Your task to perform on an android device: check the backup settings in the google photos Image 0: 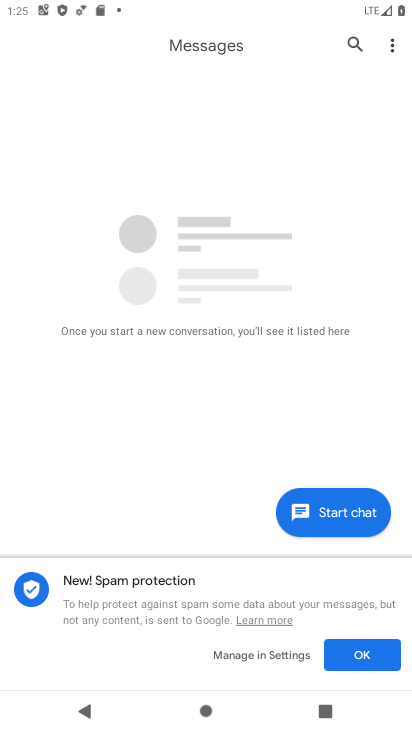
Step 0: press home button
Your task to perform on an android device: check the backup settings in the google photos Image 1: 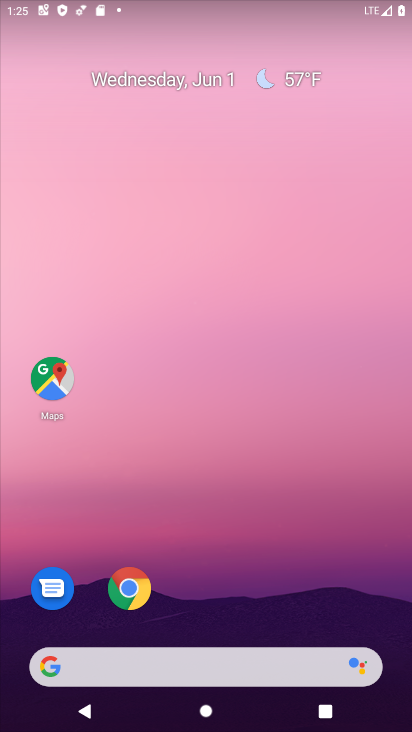
Step 1: drag from (277, 560) to (198, 23)
Your task to perform on an android device: check the backup settings in the google photos Image 2: 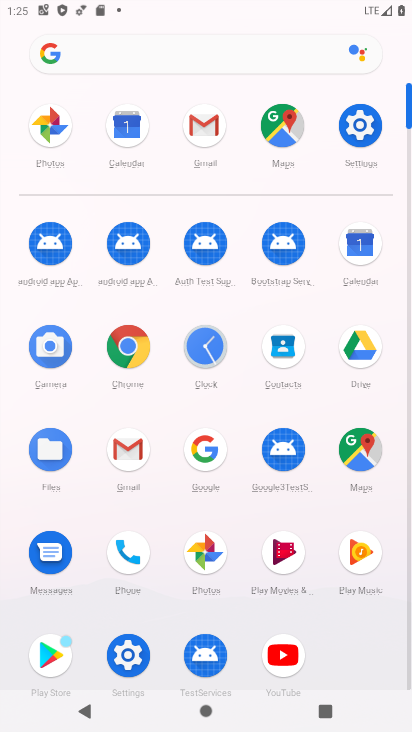
Step 2: click (221, 556)
Your task to perform on an android device: check the backup settings in the google photos Image 3: 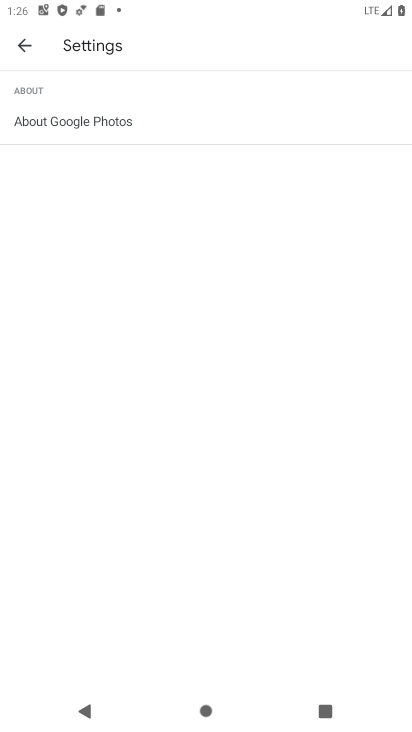
Step 3: click (20, 42)
Your task to perform on an android device: check the backup settings in the google photos Image 4: 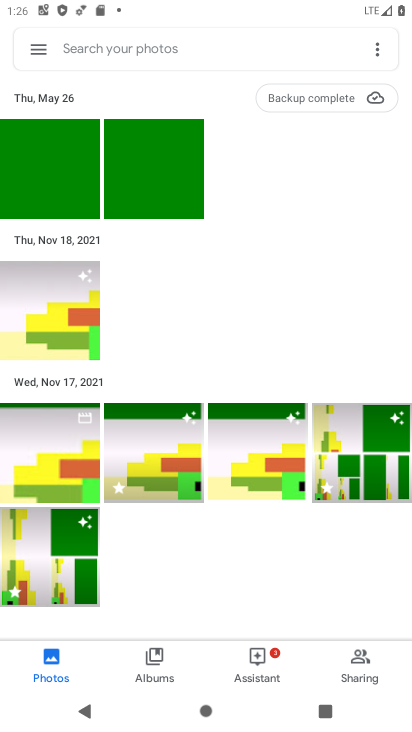
Step 4: click (43, 50)
Your task to perform on an android device: check the backup settings in the google photos Image 5: 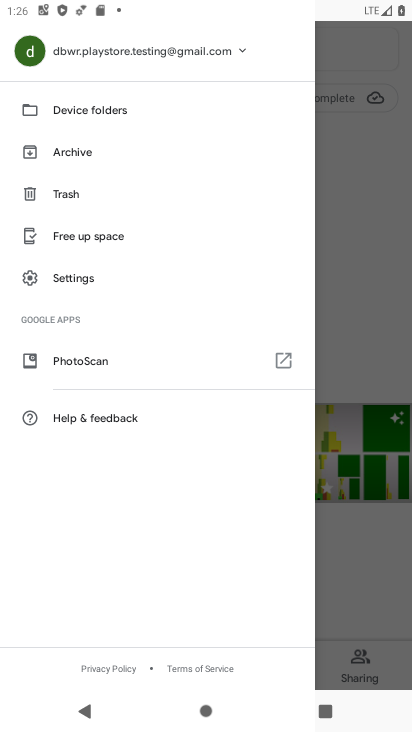
Step 5: click (113, 278)
Your task to perform on an android device: check the backup settings in the google photos Image 6: 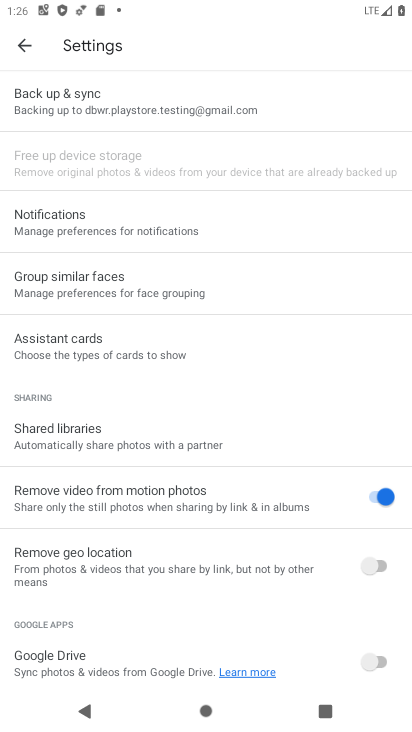
Step 6: click (162, 101)
Your task to perform on an android device: check the backup settings in the google photos Image 7: 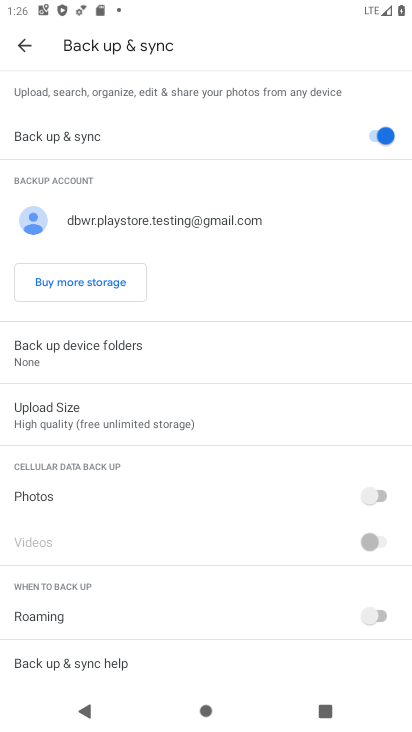
Step 7: task complete